Your task to perform on an android device: change keyboard looks Image 0: 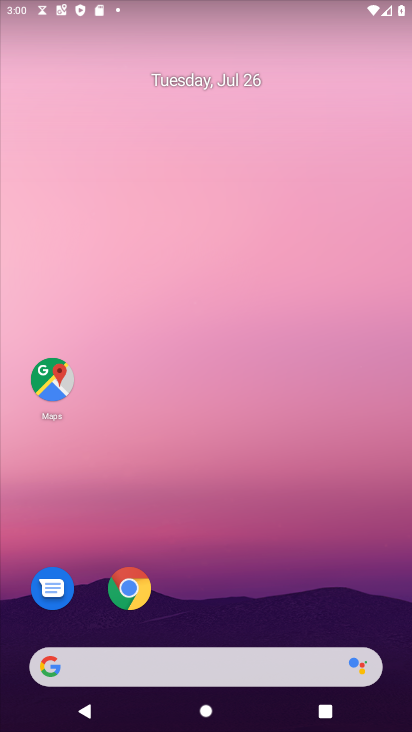
Step 0: drag from (278, 616) to (310, 95)
Your task to perform on an android device: change keyboard looks Image 1: 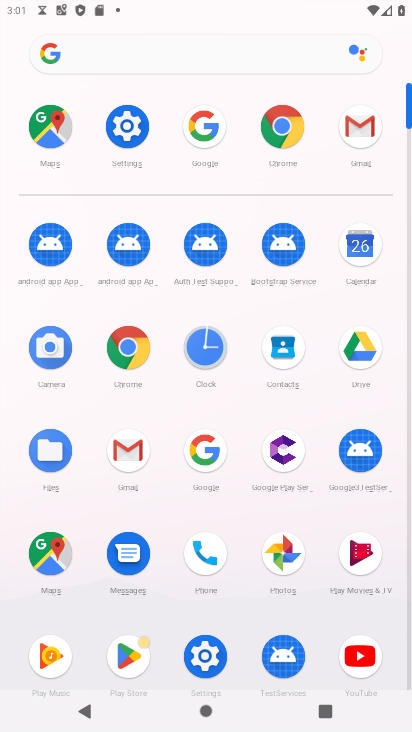
Step 1: click (133, 114)
Your task to perform on an android device: change keyboard looks Image 2: 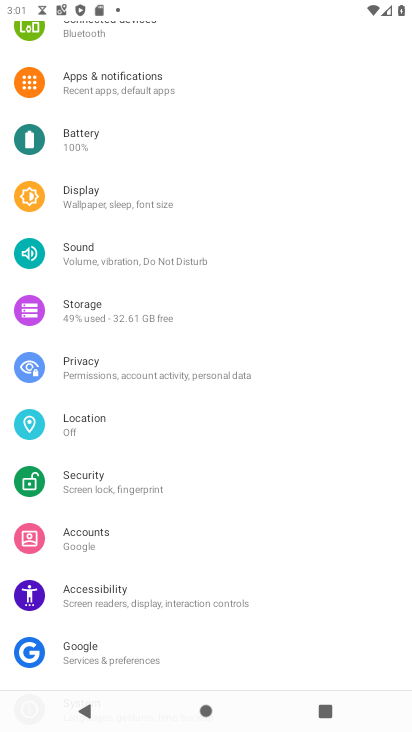
Step 2: drag from (105, 574) to (161, 209)
Your task to perform on an android device: change keyboard looks Image 3: 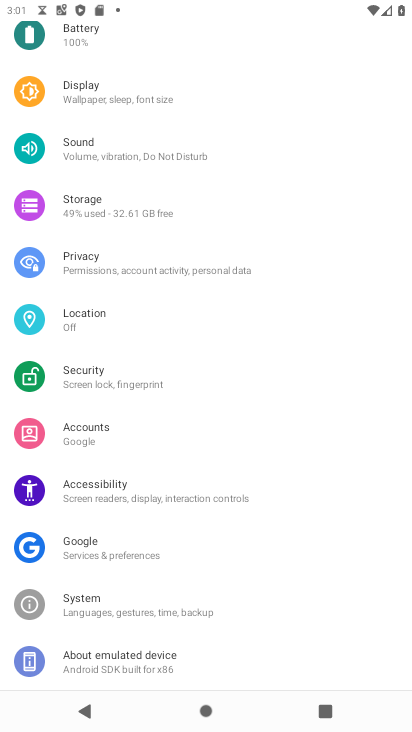
Step 3: click (108, 598)
Your task to perform on an android device: change keyboard looks Image 4: 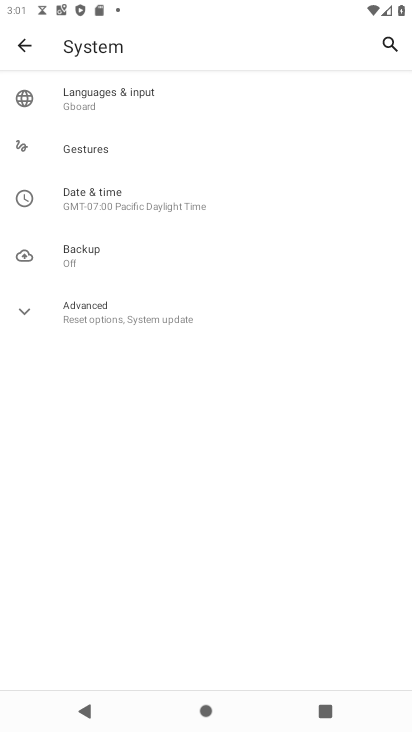
Step 4: click (86, 86)
Your task to perform on an android device: change keyboard looks Image 5: 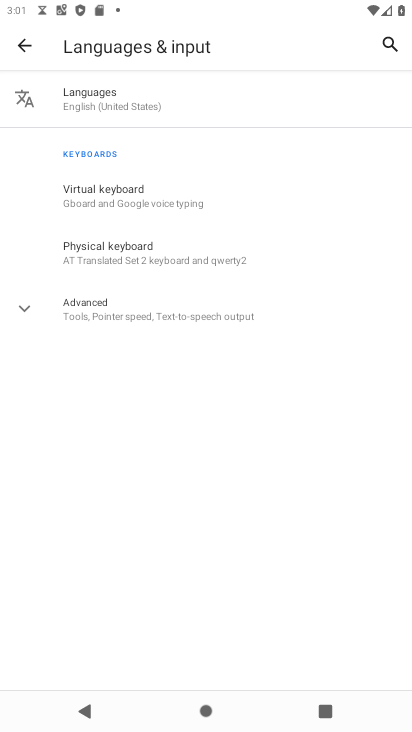
Step 5: click (144, 208)
Your task to perform on an android device: change keyboard looks Image 6: 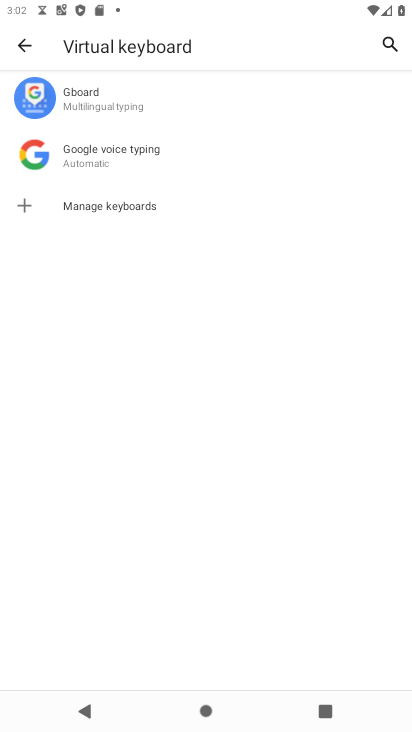
Step 6: click (89, 101)
Your task to perform on an android device: change keyboard looks Image 7: 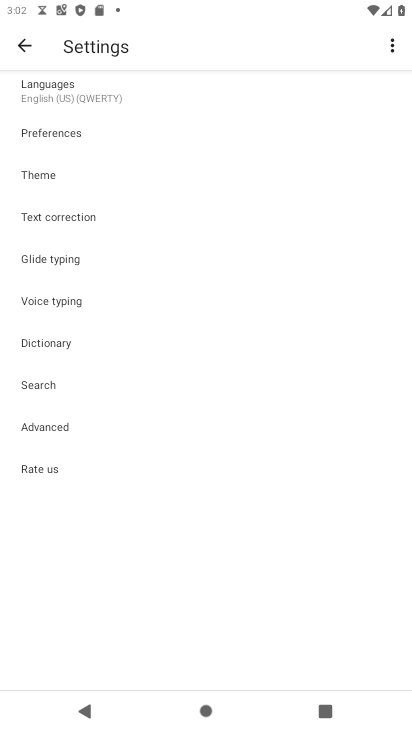
Step 7: click (28, 169)
Your task to perform on an android device: change keyboard looks Image 8: 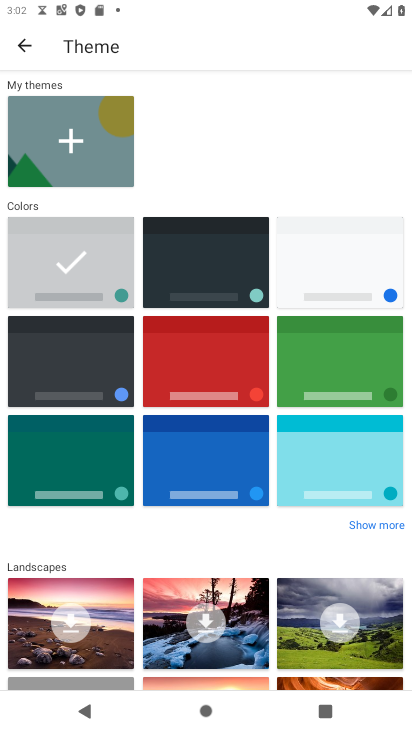
Step 8: click (184, 265)
Your task to perform on an android device: change keyboard looks Image 9: 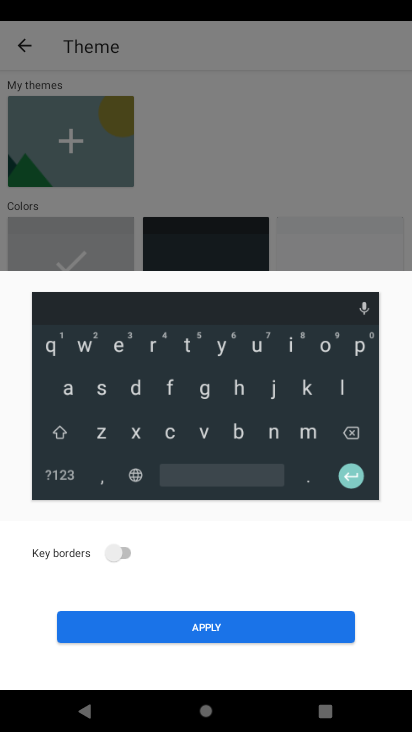
Step 9: click (284, 620)
Your task to perform on an android device: change keyboard looks Image 10: 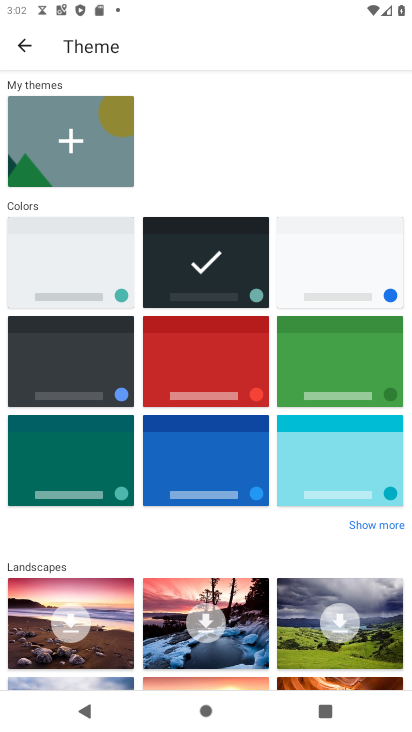
Step 10: task complete